Your task to perform on an android device: turn on airplane mode Image 0: 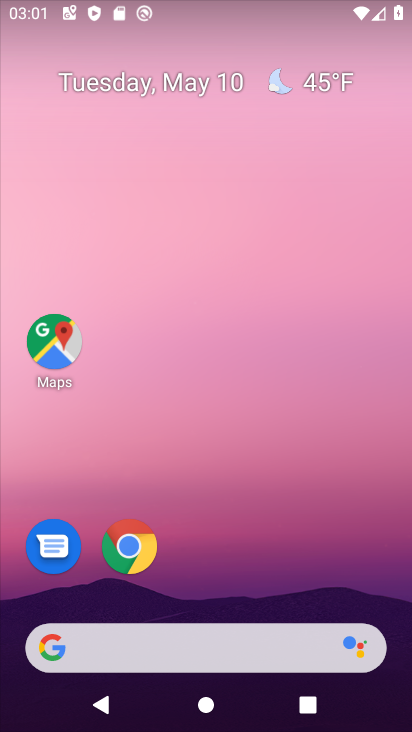
Step 0: drag from (254, 474) to (204, 24)
Your task to perform on an android device: turn on airplane mode Image 1: 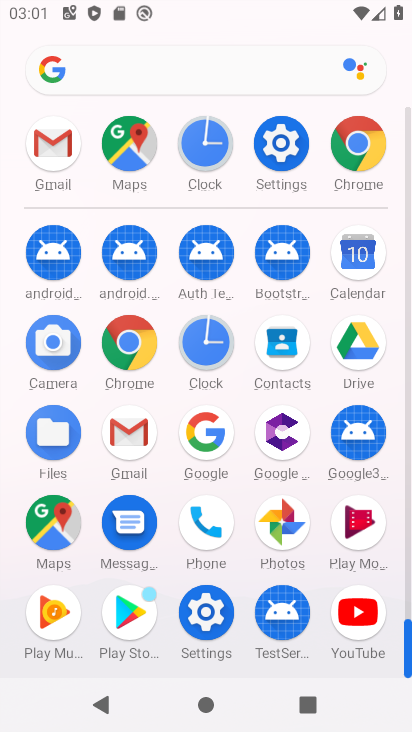
Step 1: click (285, 140)
Your task to perform on an android device: turn on airplane mode Image 2: 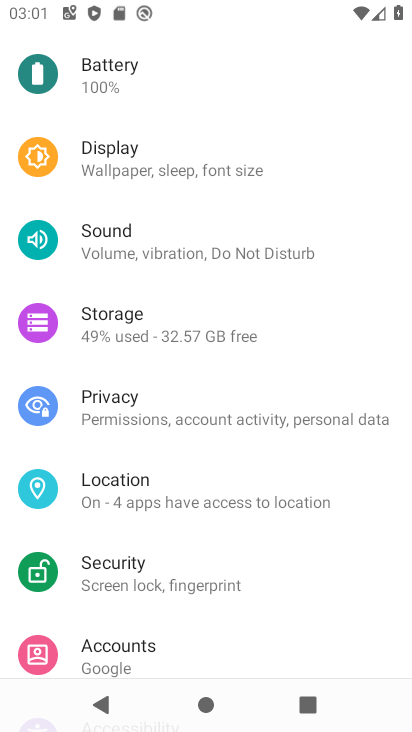
Step 2: drag from (285, 141) to (275, 564)
Your task to perform on an android device: turn on airplane mode Image 3: 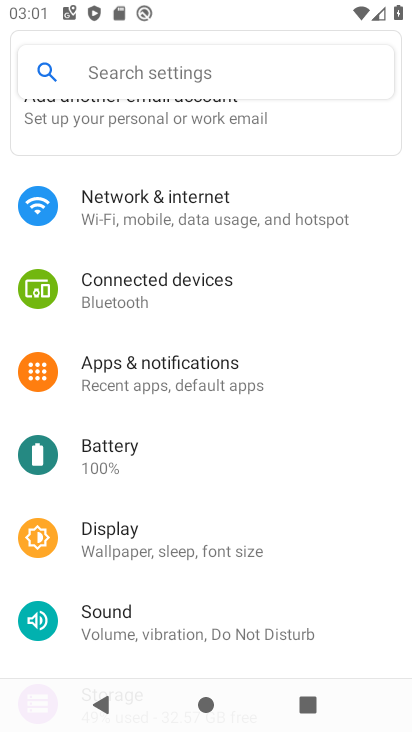
Step 3: drag from (277, 263) to (271, 558)
Your task to perform on an android device: turn on airplane mode Image 4: 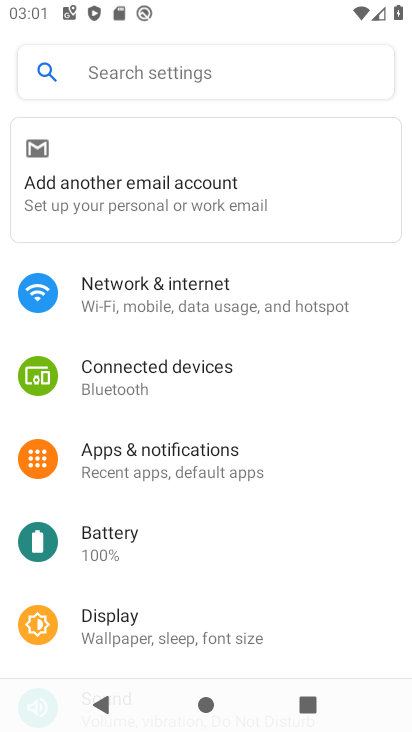
Step 4: click (236, 297)
Your task to perform on an android device: turn on airplane mode Image 5: 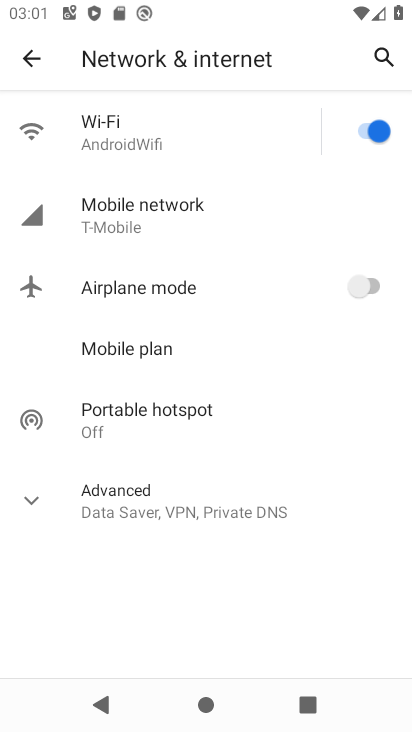
Step 5: click (371, 290)
Your task to perform on an android device: turn on airplane mode Image 6: 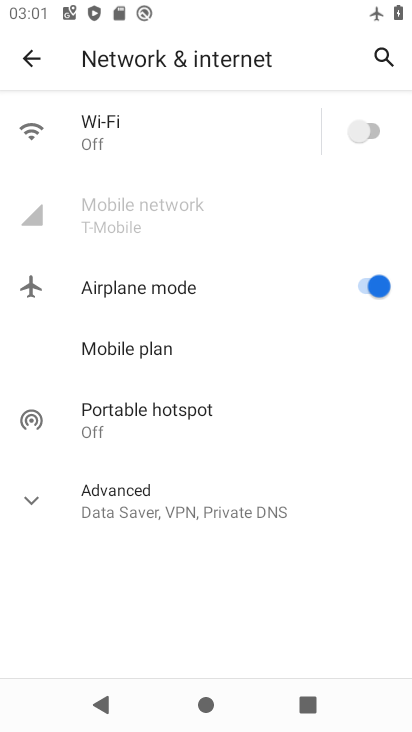
Step 6: task complete